Your task to perform on an android device: turn notification dots off Image 0: 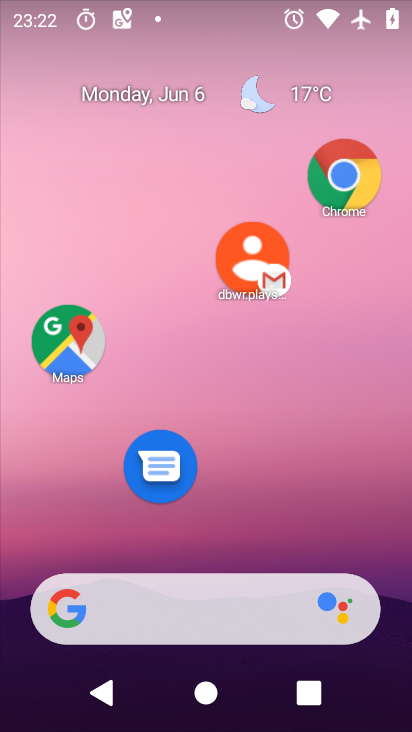
Step 0: click (406, 625)
Your task to perform on an android device: turn notification dots off Image 1: 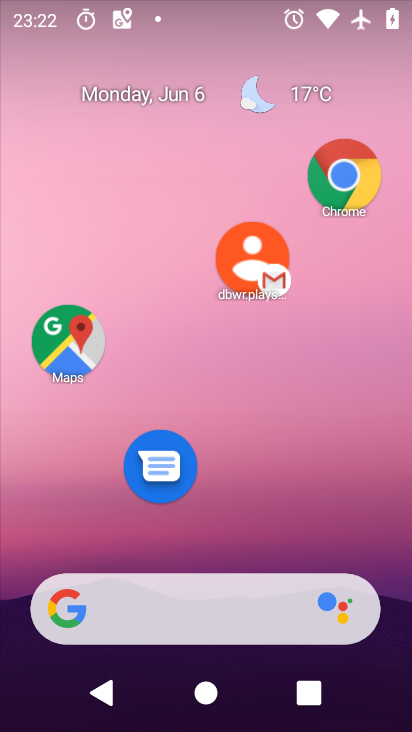
Step 1: drag from (232, 531) to (272, 217)
Your task to perform on an android device: turn notification dots off Image 2: 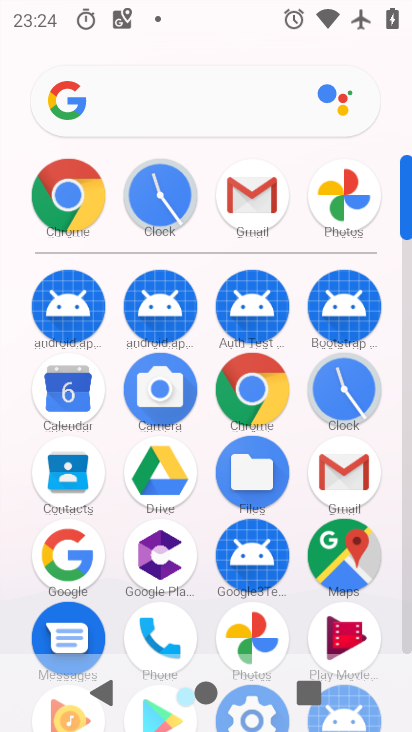
Step 2: drag from (190, 553) to (205, 86)
Your task to perform on an android device: turn notification dots off Image 3: 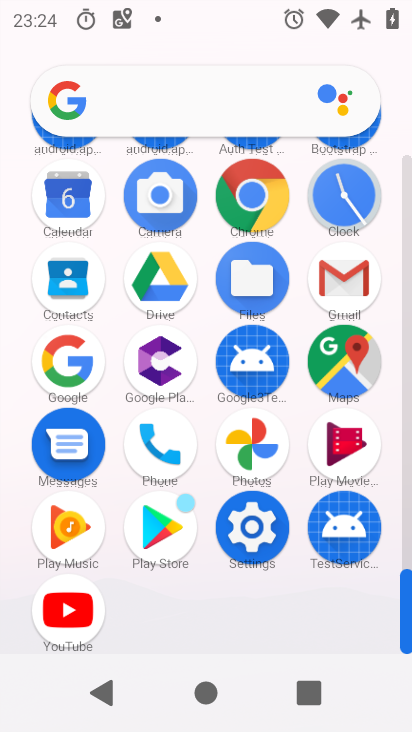
Step 3: click (241, 537)
Your task to perform on an android device: turn notification dots off Image 4: 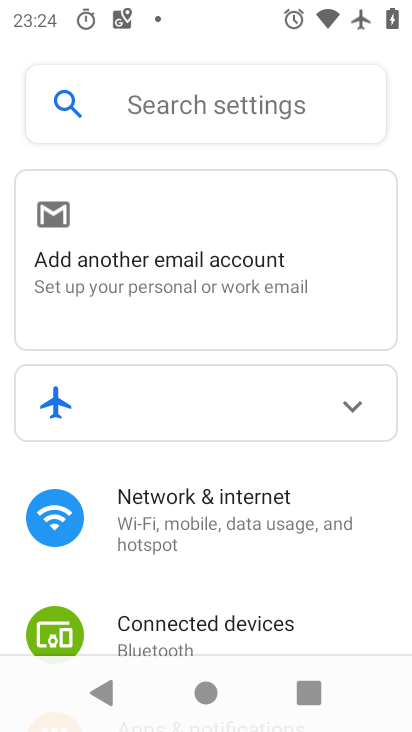
Step 4: drag from (241, 534) to (255, 224)
Your task to perform on an android device: turn notification dots off Image 5: 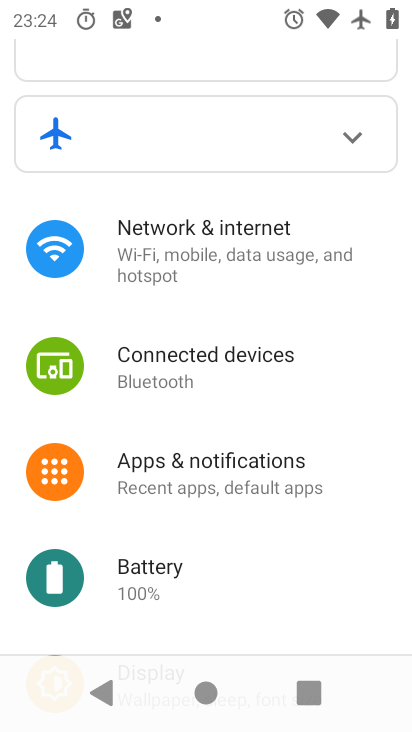
Step 5: click (179, 466)
Your task to perform on an android device: turn notification dots off Image 6: 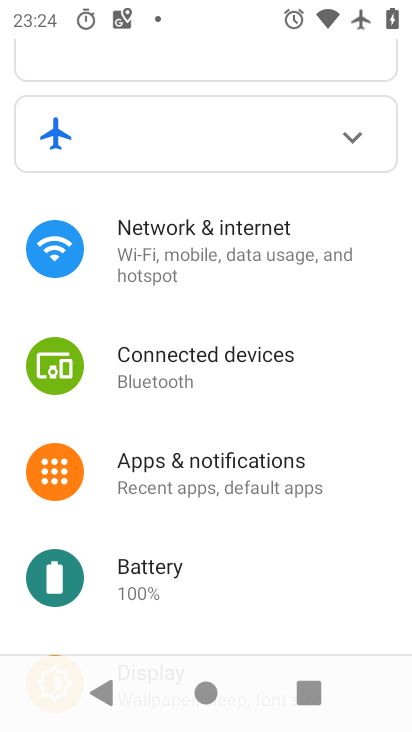
Step 6: click (180, 466)
Your task to perform on an android device: turn notification dots off Image 7: 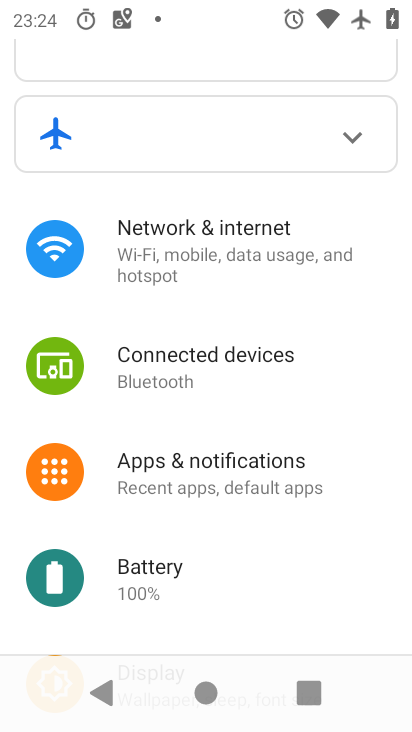
Step 7: click (182, 466)
Your task to perform on an android device: turn notification dots off Image 8: 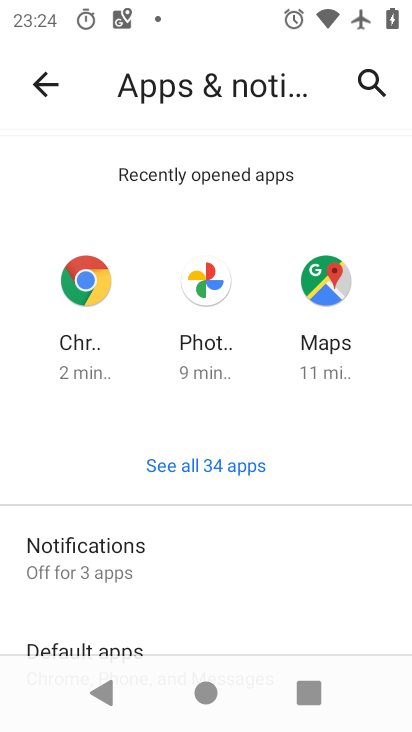
Step 8: click (167, 557)
Your task to perform on an android device: turn notification dots off Image 9: 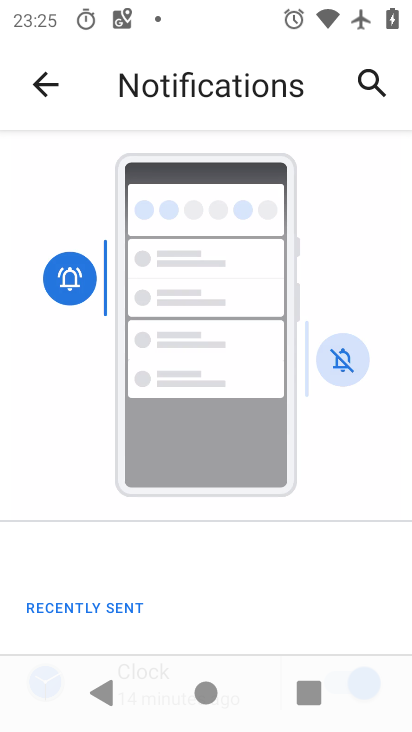
Step 9: click (257, 413)
Your task to perform on an android device: turn notification dots off Image 10: 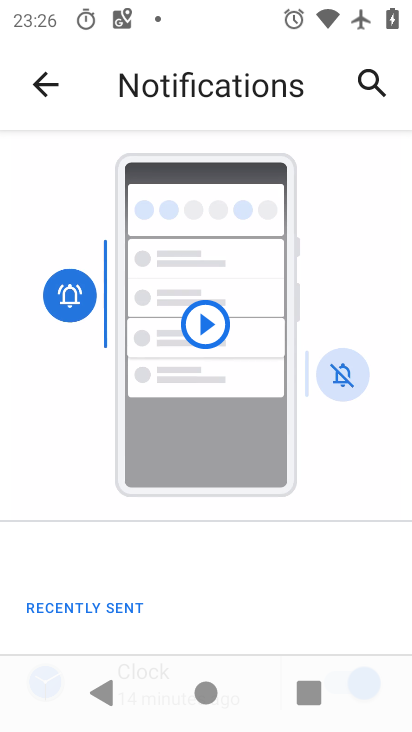
Step 10: drag from (197, 517) to (203, 381)
Your task to perform on an android device: turn notification dots off Image 11: 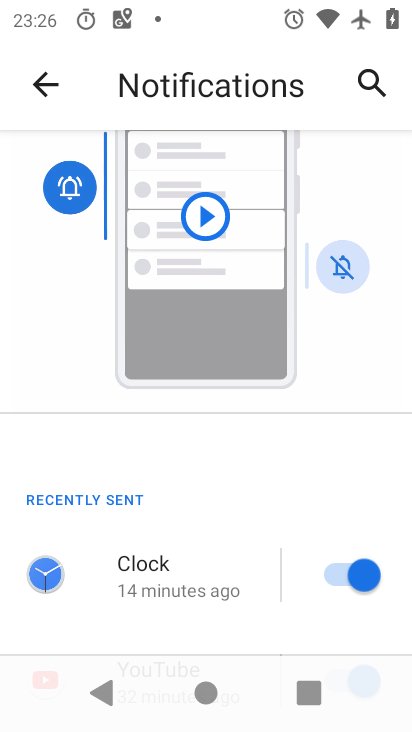
Step 11: drag from (205, 585) to (242, 120)
Your task to perform on an android device: turn notification dots off Image 12: 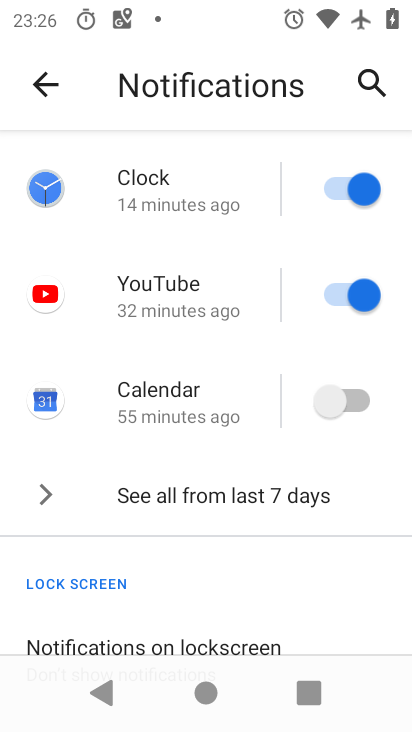
Step 12: drag from (219, 462) to (266, 97)
Your task to perform on an android device: turn notification dots off Image 13: 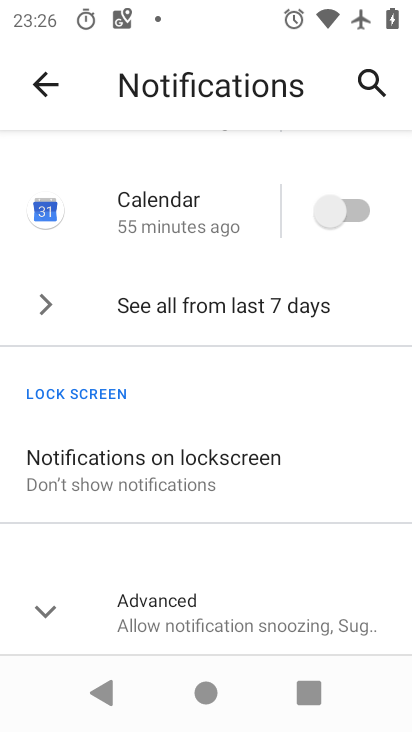
Step 13: click (163, 620)
Your task to perform on an android device: turn notification dots off Image 14: 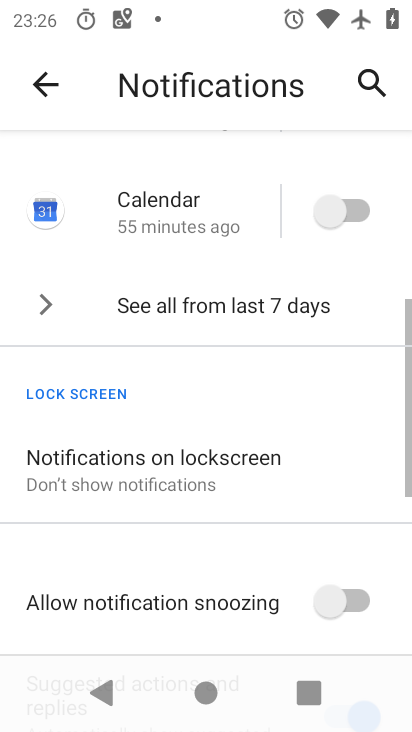
Step 14: drag from (249, 162) to (309, 28)
Your task to perform on an android device: turn notification dots off Image 15: 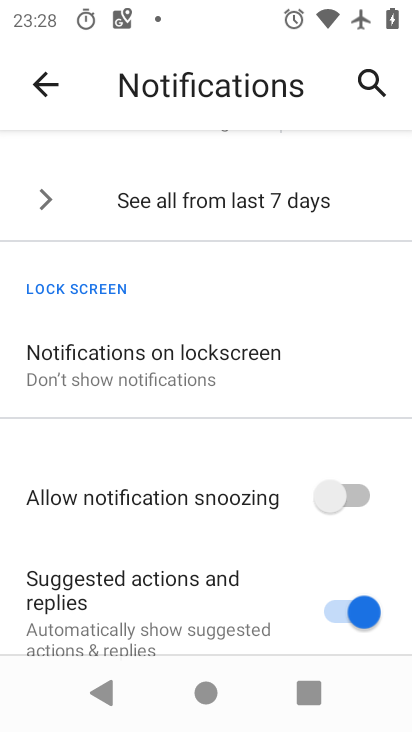
Step 15: drag from (235, 522) to (291, 0)
Your task to perform on an android device: turn notification dots off Image 16: 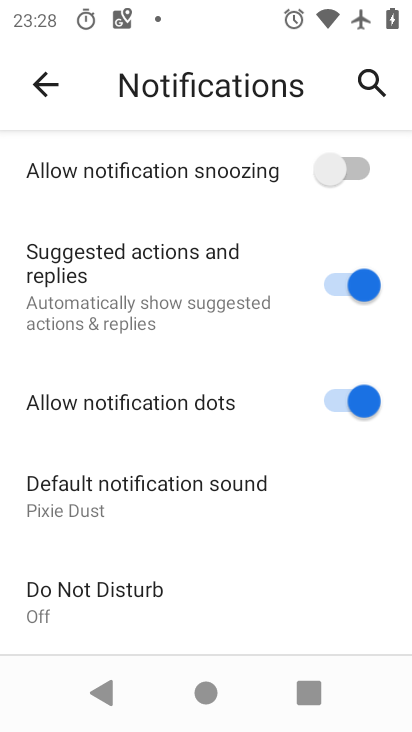
Step 16: click (358, 390)
Your task to perform on an android device: turn notification dots off Image 17: 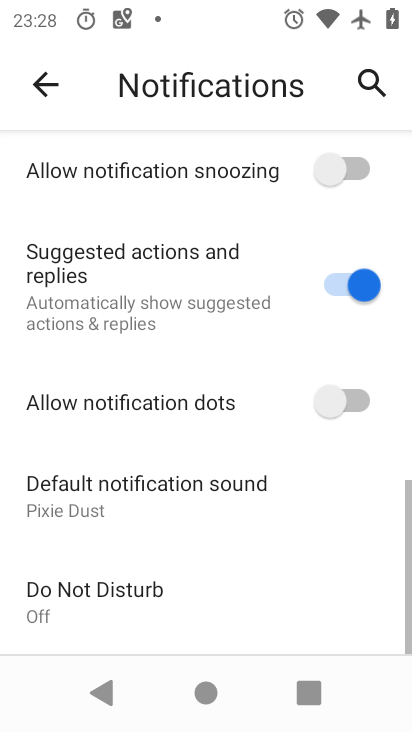
Step 17: task complete